Your task to perform on an android device: Open the web browser Image 0: 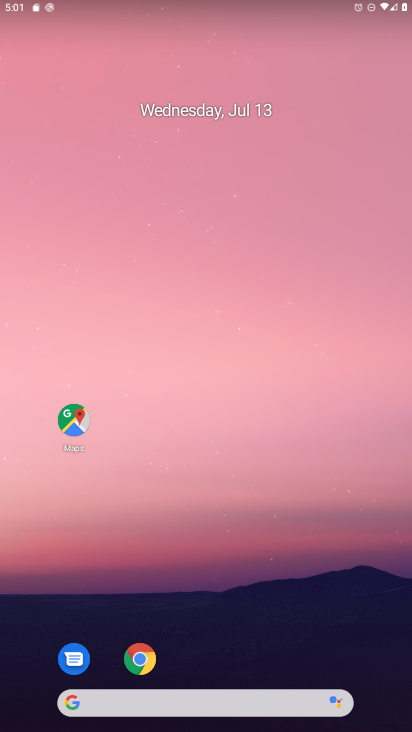
Step 0: drag from (294, 598) to (170, 62)
Your task to perform on an android device: Open the web browser Image 1: 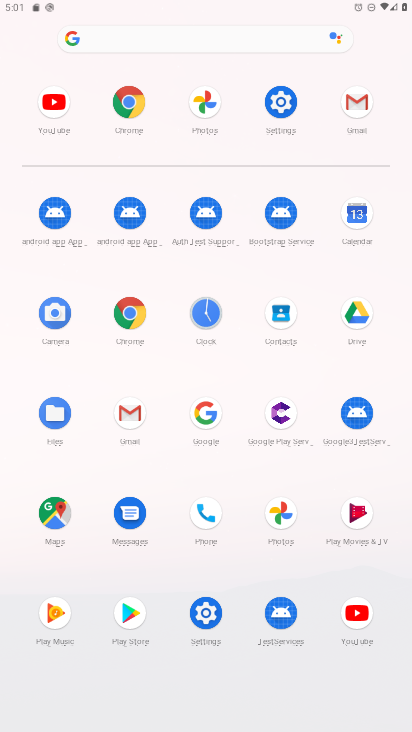
Step 1: click (126, 103)
Your task to perform on an android device: Open the web browser Image 2: 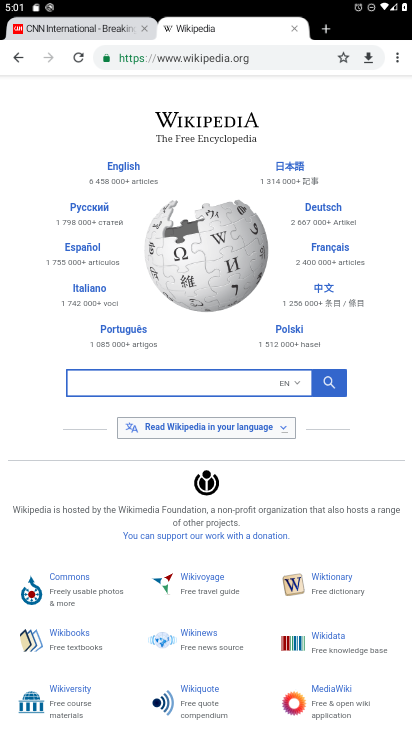
Step 2: task complete